Your task to perform on an android device: turn off data saver in the chrome app Image 0: 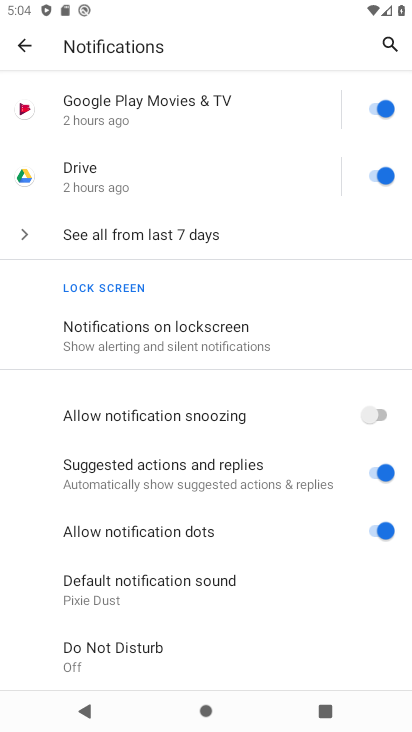
Step 0: press home button
Your task to perform on an android device: turn off data saver in the chrome app Image 1: 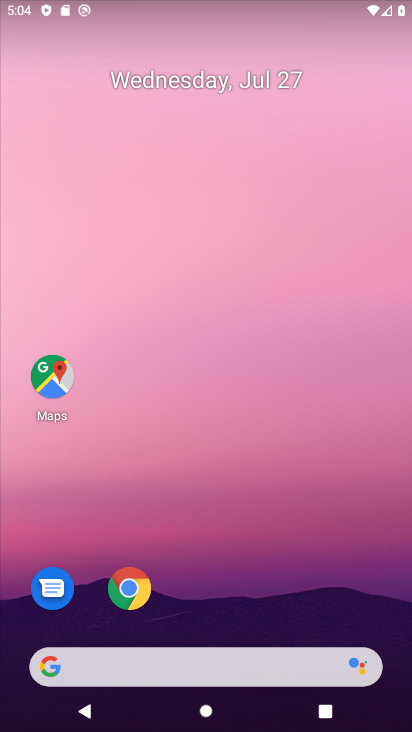
Step 1: drag from (233, 667) to (190, 7)
Your task to perform on an android device: turn off data saver in the chrome app Image 2: 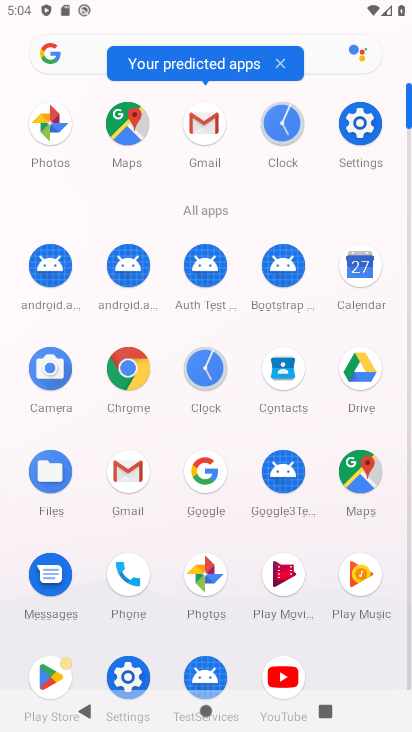
Step 2: click (122, 364)
Your task to perform on an android device: turn off data saver in the chrome app Image 3: 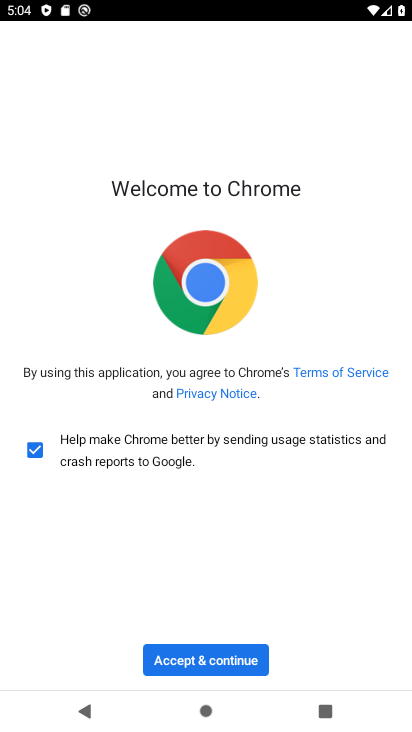
Step 3: click (245, 662)
Your task to perform on an android device: turn off data saver in the chrome app Image 4: 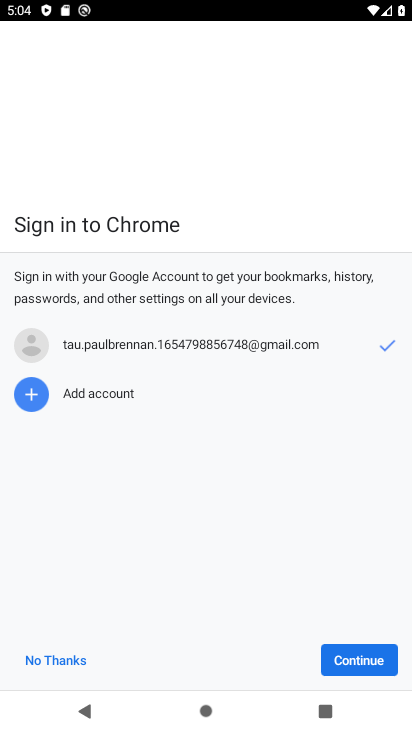
Step 4: click (74, 658)
Your task to perform on an android device: turn off data saver in the chrome app Image 5: 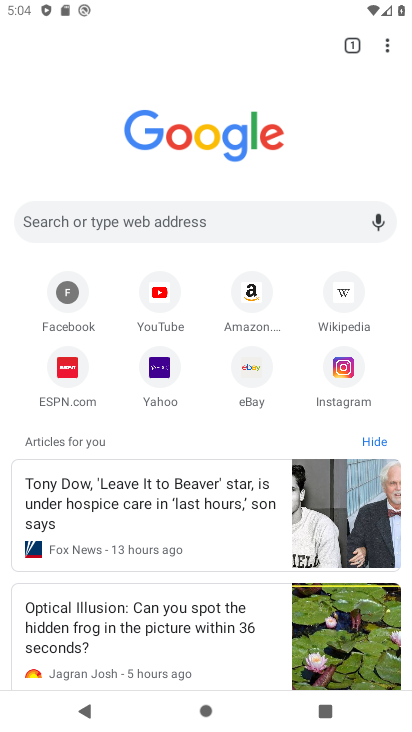
Step 5: click (379, 43)
Your task to perform on an android device: turn off data saver in the chrome app Image 6: 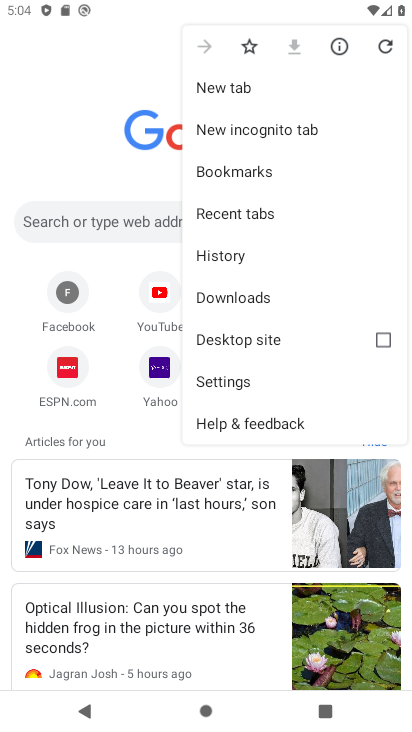
Step 6: click (250, 379)
Your task to perform on an android device: turn off data saver in the chrome app Image 7: 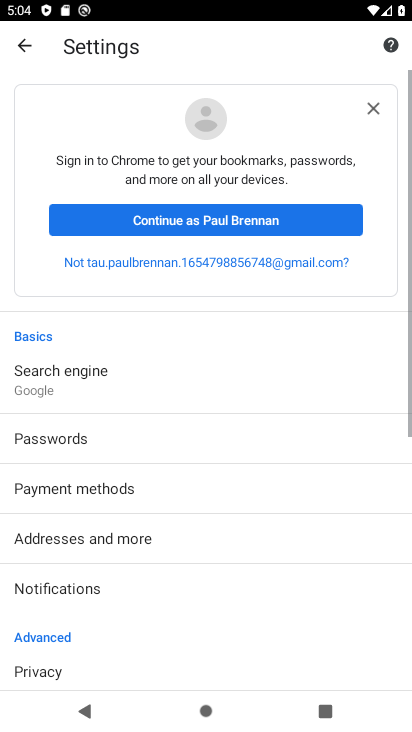
Step 7: drag from (150, 646) to (177, 302)
Your task to perform on an android device: turn off data saver in the chrome app Image 8: 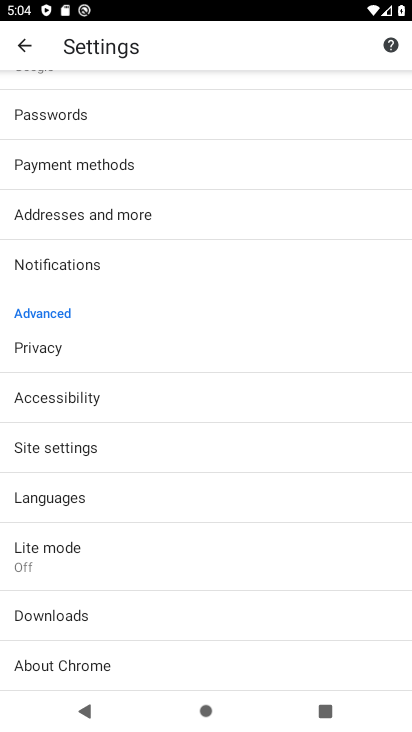
Step 8: click (68, 566)
Your task to perform on an android device: turn off data saver in the chrome app Image 9: 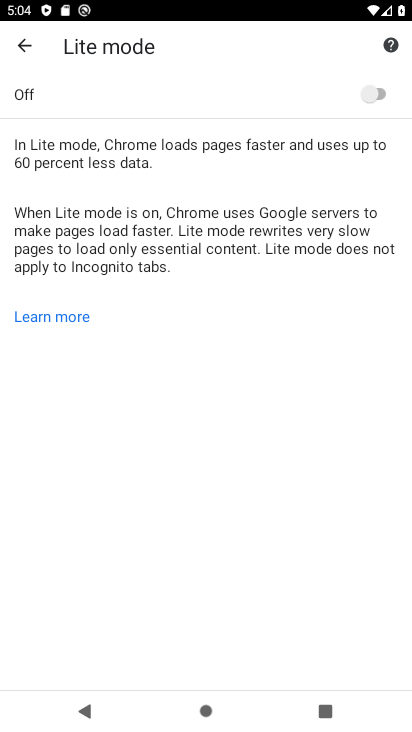
Step 9: task complete